Your task to perform on an android device: Go to settings Image 0: 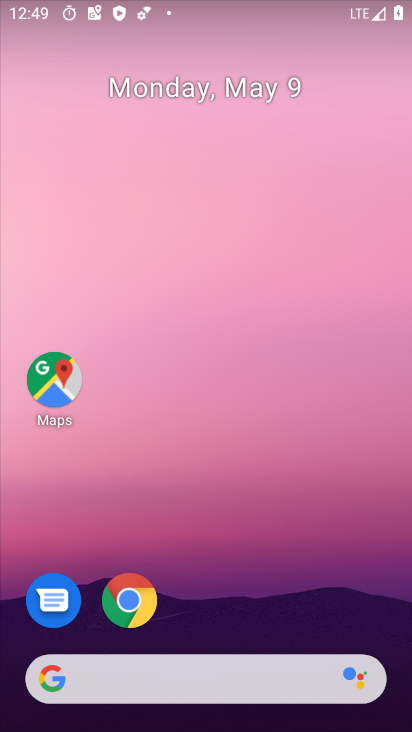
Step 0: drag from (267, 623) to (287, 134)
Your task to perform on an android device: Go to settings Image 1: 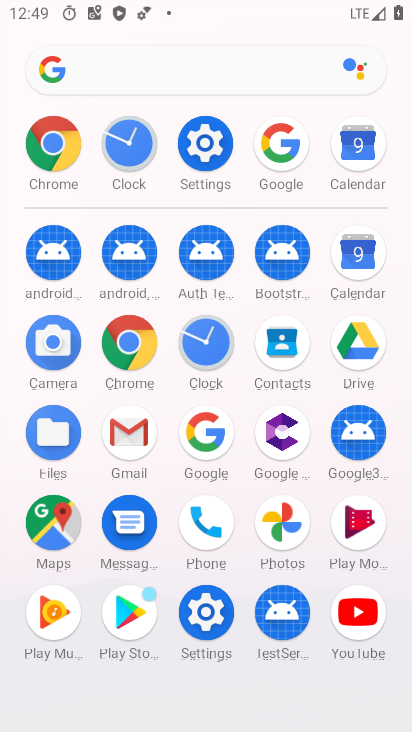
Step 1: click (201, 158)
Your task to perform on an android device: Go to settings Image 2: 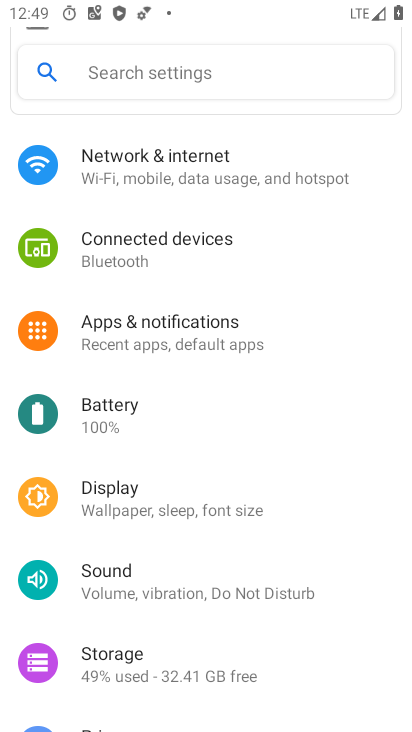
Step 2: task complete